Your task to perform on an android device: turn on notifications settings in the gmail app Image 0: 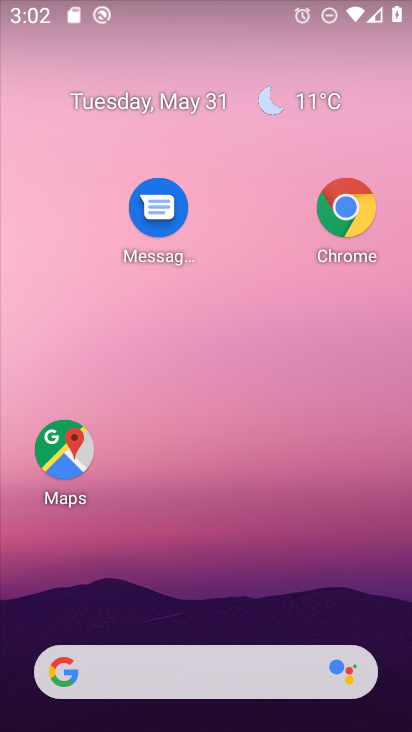
Step 0: drag from (246, 615) to (150, 565)
Your task to perform on an android device: turn on notifications settings in the gmail app Image 1: 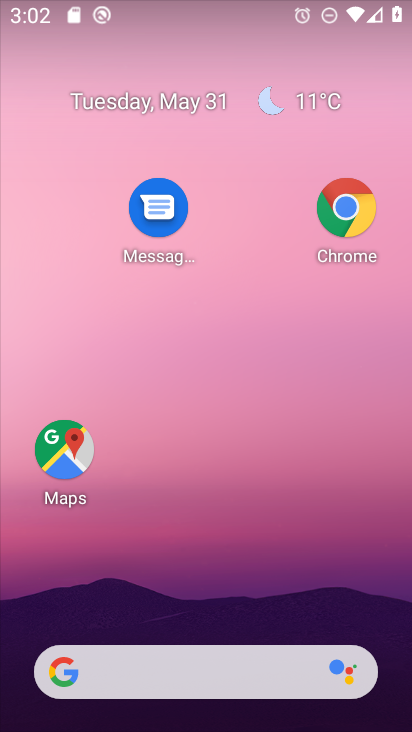
Step 1: drag from (237, 576) to (363, 300)
Your task to perform on an android device: turn on notifications settings in the gmail app Image 2: 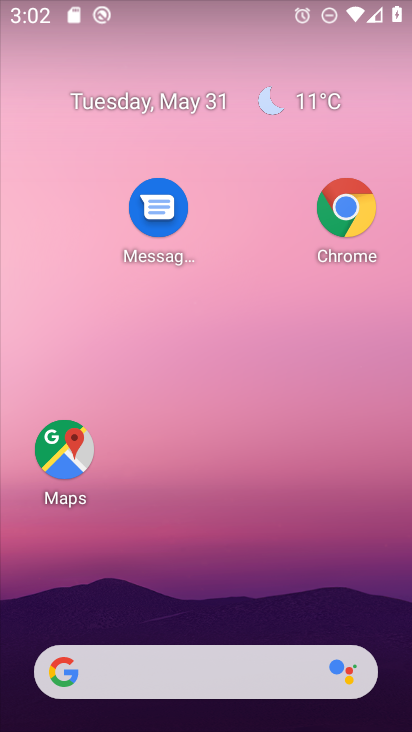
Step 2: drag from (212, 451) to (193, 115)
Your task to perform on an android device: turn on notifications settings in the gmail app Image 3: 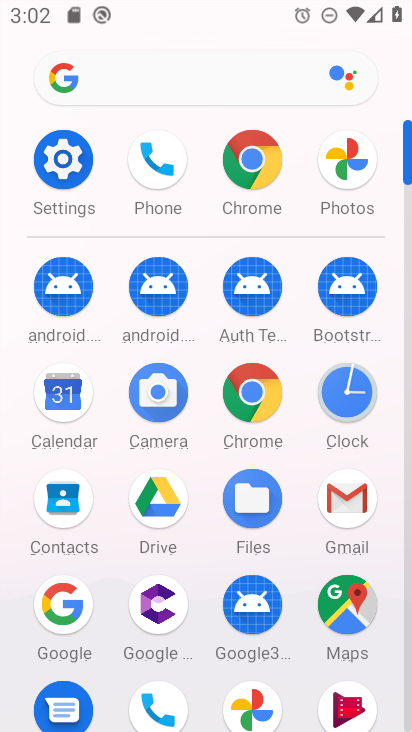
Step 3: click (338, 485)
Your task to perform on an android device: turn on notifications settings in the gmail app Image 4: 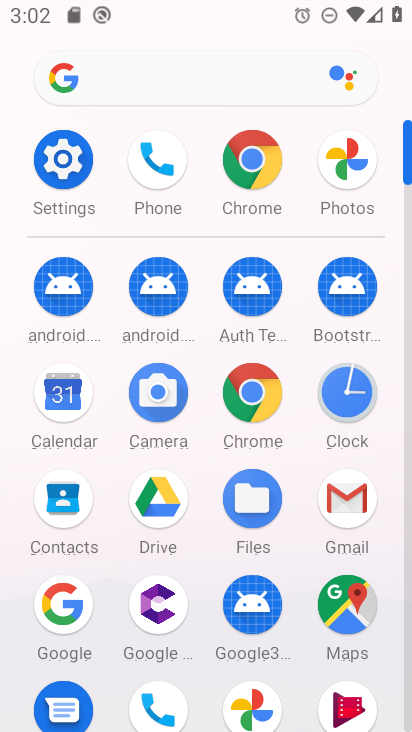
Step 4: click (337, 485)
Your task to perform on an android device: turn on notifications settings in the gmail app Image 5: 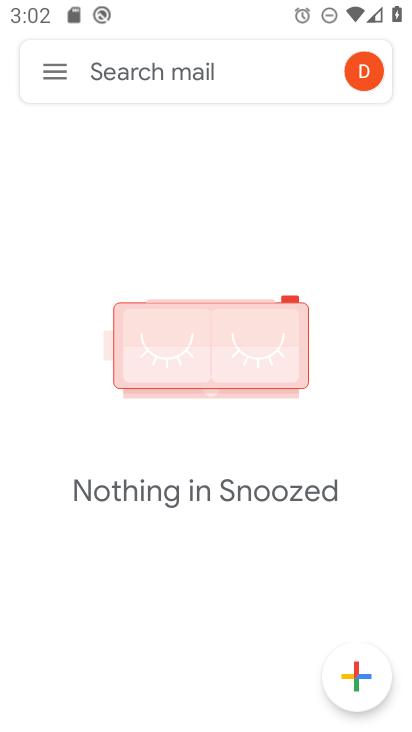
Step 5: click (30, 68)
Your task to perform on an android device: turn on notifications settings in the gmail app Image 6: 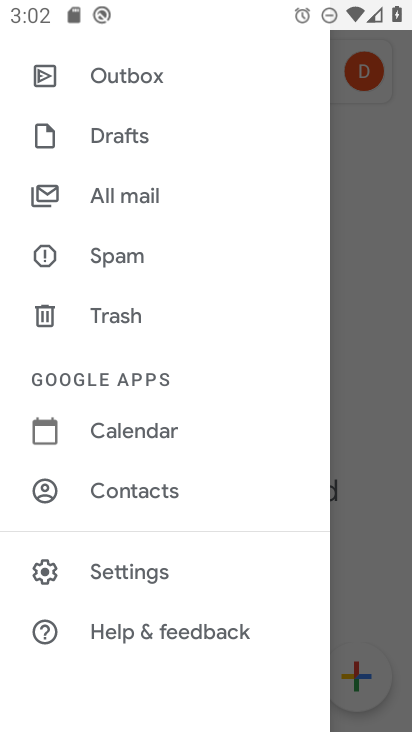
Step 6: click (162, 582)
Your task to perform on an android device: turn on notifications settings in the gmail app Image 7: 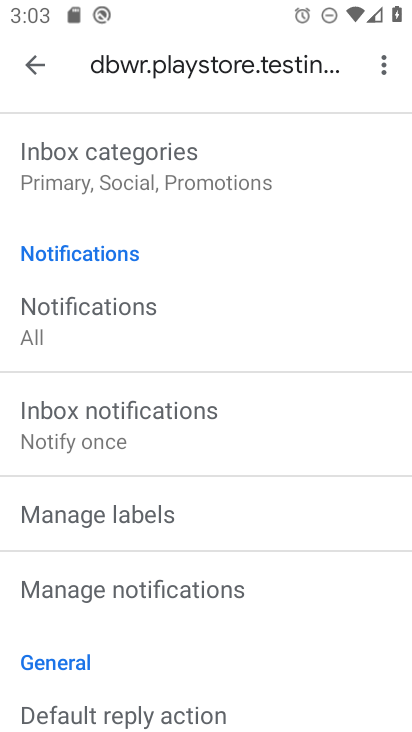
Step 7: click (278, 603)
Your task to perform on an android device: turn on notifications settings in the gmail app Image 8: 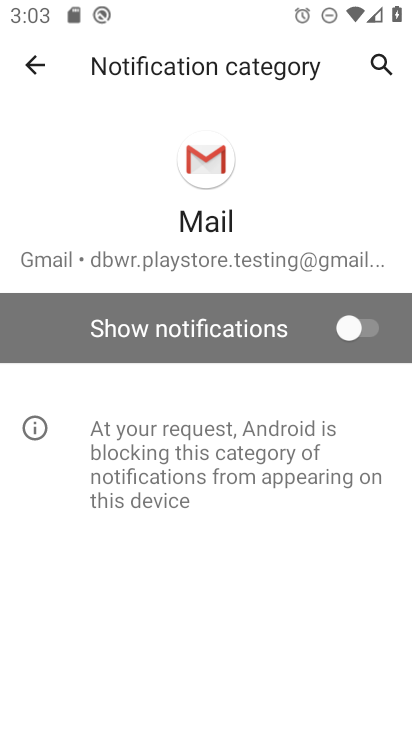
Step 8: click (309, 309)
Your task to perform on an android device: turn on notifications settings in the gmail app Image 9: 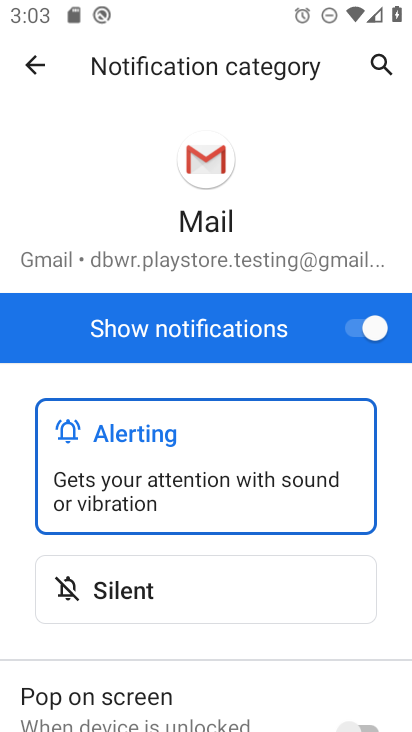
Step 9: task complete